Your task to perform on an android device: Go to calendar. Show me events next week Image 0: 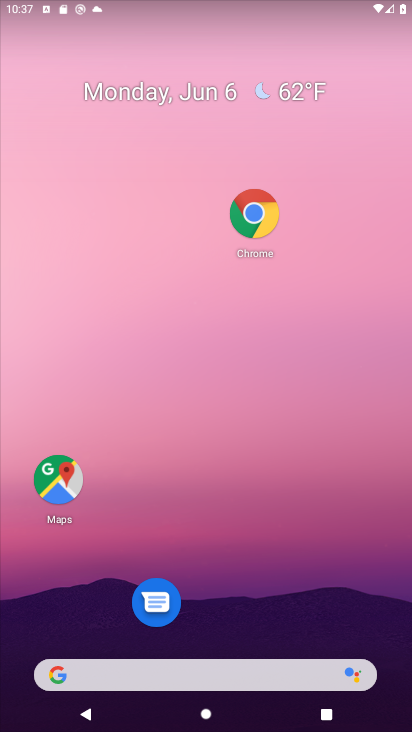
Step 0: drag from (255, 634) to (278, 299)
Your task to perform on an android device: Go to calendar. Show me events next week Image 1: 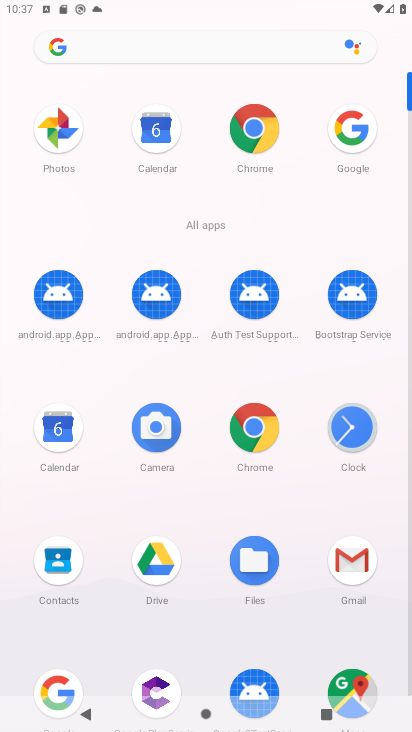
Step 1: click (60, 565)
Your task to perform on an android device: Go to calendar. Show me events next week Image 2: 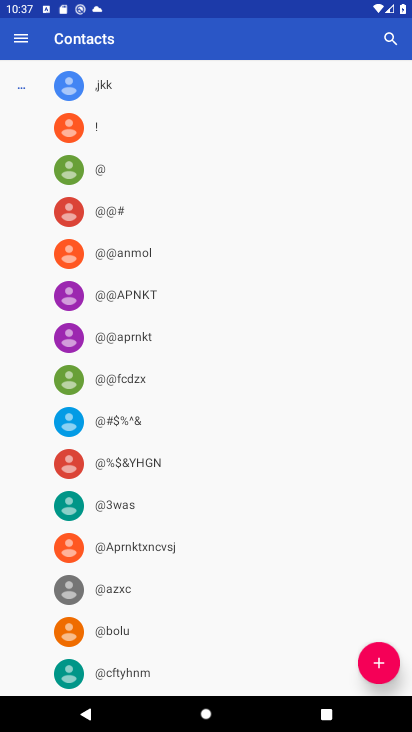
Step 2: press home button
Your task to perform on an android device: Go to calendar. Show me events next week Image 3: 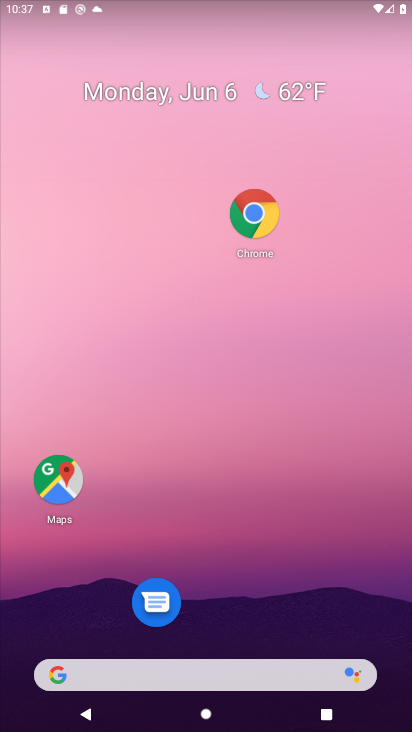
Step 3: drag from (215, 604) to (190, 11)
Your task to perform on an android device: Go to calendar. Show me events next week Image 4: 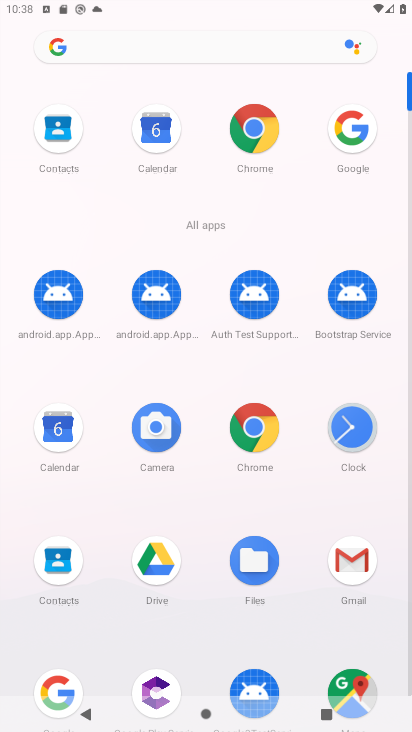
Step 4: click (62, 443)
Your task to perform on an android device: Go to calendar. Show me events next week Image 5: 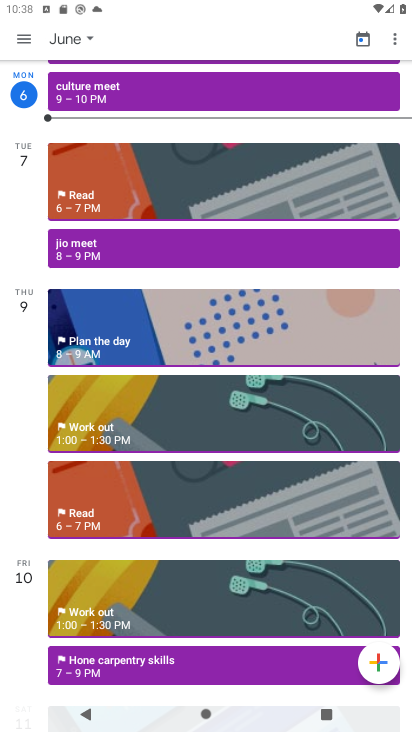
Step 5: task complete